Your task to perform on an android device: open a bookmark in the chrome app Image 0: 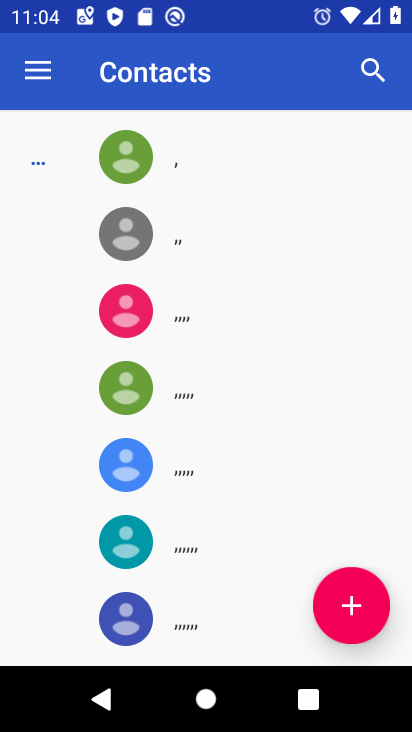
Step 0: press home button
Your task to perform on an android device: open a bookmark in the chrome app Image 1: 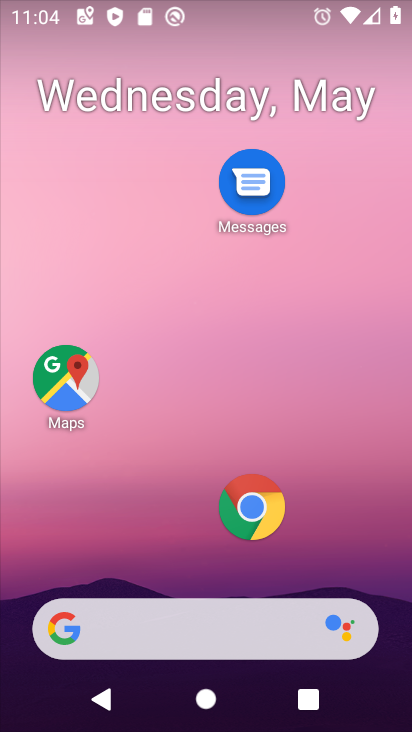
Step 1: click (252, 500)
Your task to perform on an android device: open a bookmark in the chrome app Image 2: 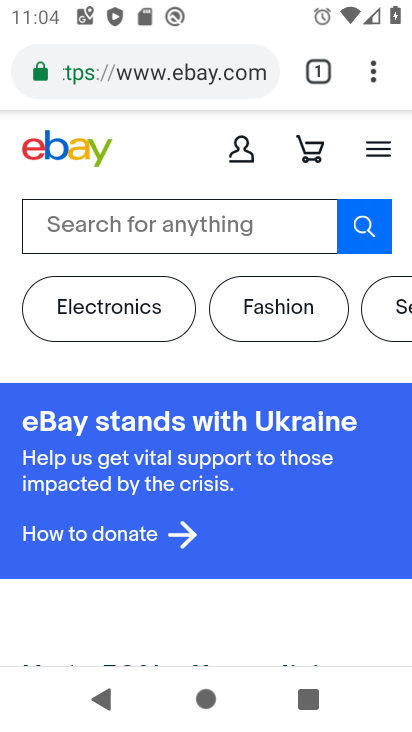
Step 2: click (373, 68)
Your task to perform on an android device: open a bookmark in the chrome app Image 3: 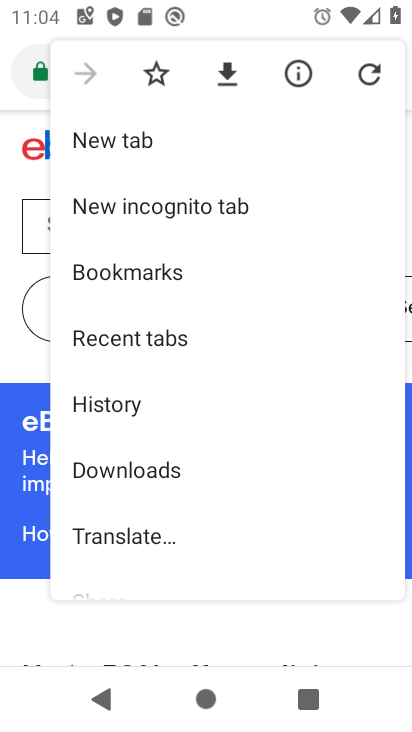
Step 3: click (197, 266)
Your task to perform on an android device: open a bookmark in the chrome app Image 4: 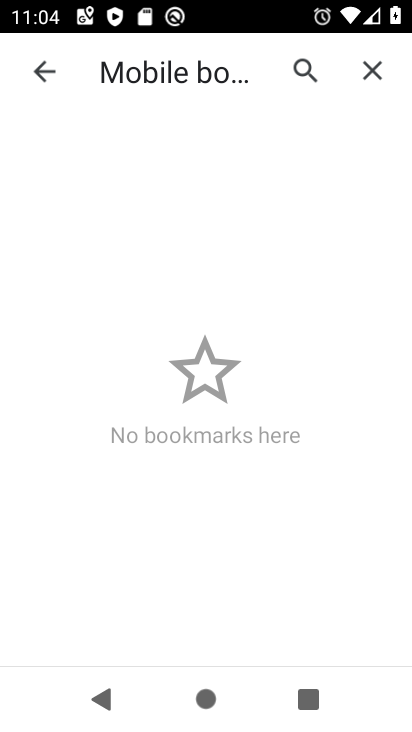
Step 4: task complete